Your task to perform on an android device: change the clock style Image 0: 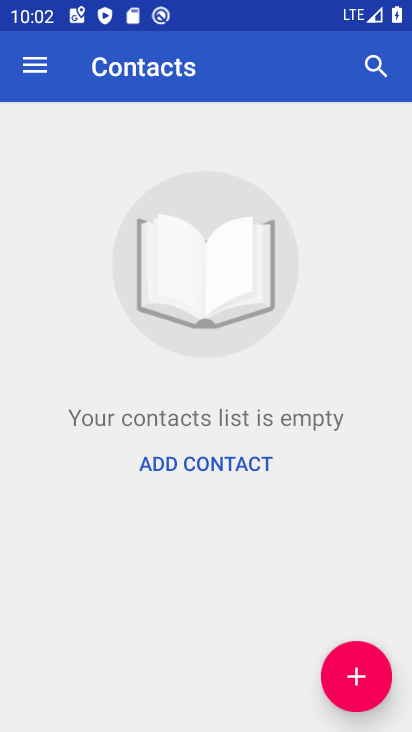
Step 0: press home button
Your task to perform on an android device: change the clock style Image 1: 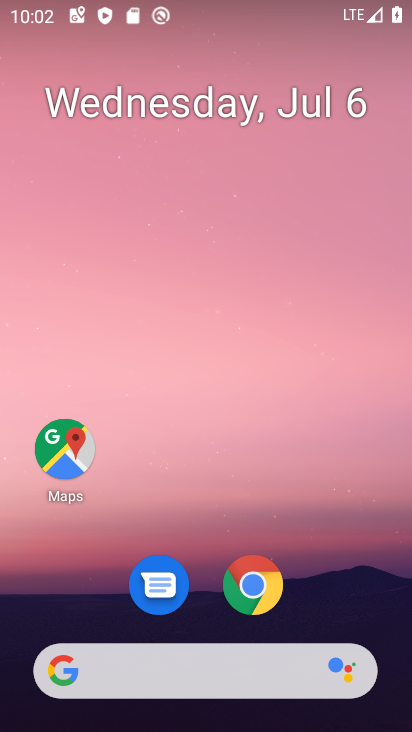
Step 1: drag from (208, 518) to (187, 111)
Your task to perform on an android device: change the clock style Image 2: 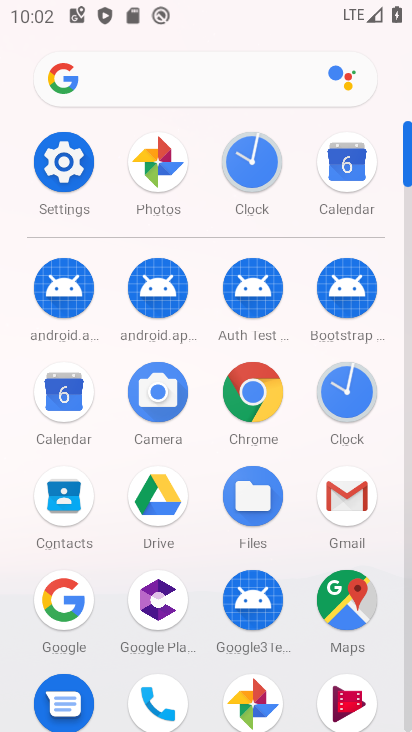
Step 2: click (357, 389)
Your task to perform on an android device: change the clock style Image 3: 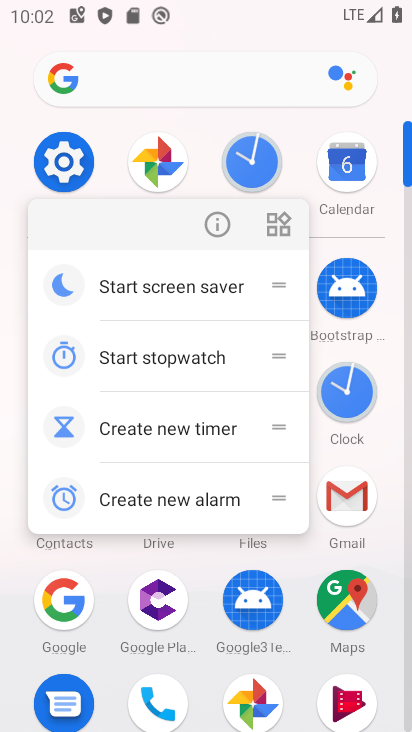
Step 3: click (355, 389)
Your task to perform on an android device: change the clock style Image 4: 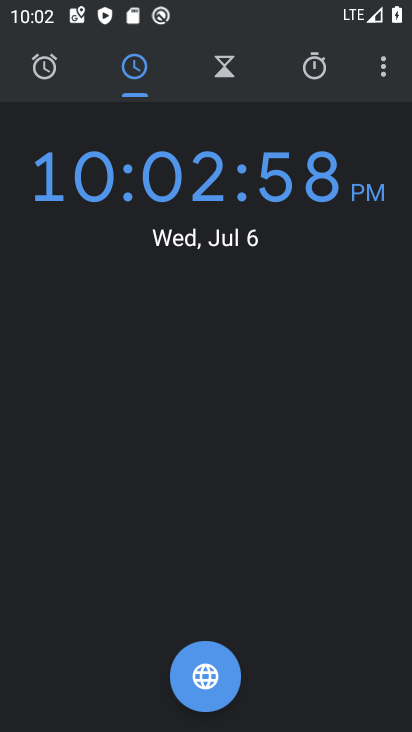
Step 4: click (383, 65)
Your task to perform on an android device: change the clock style Image 5: 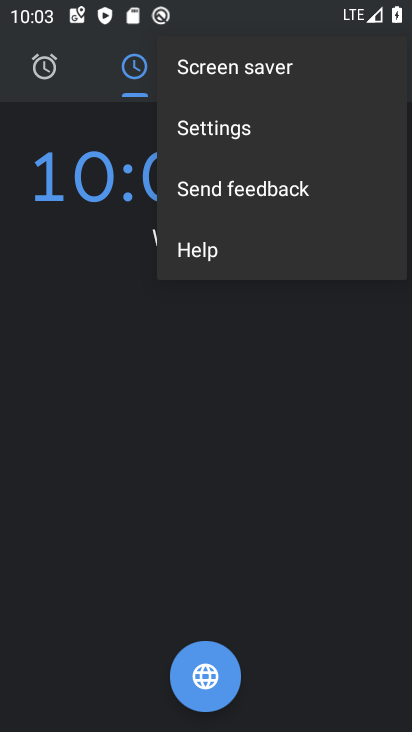
Step 5: click (266, 129)
Your task to perform on an android device: change the clock style Image 6: 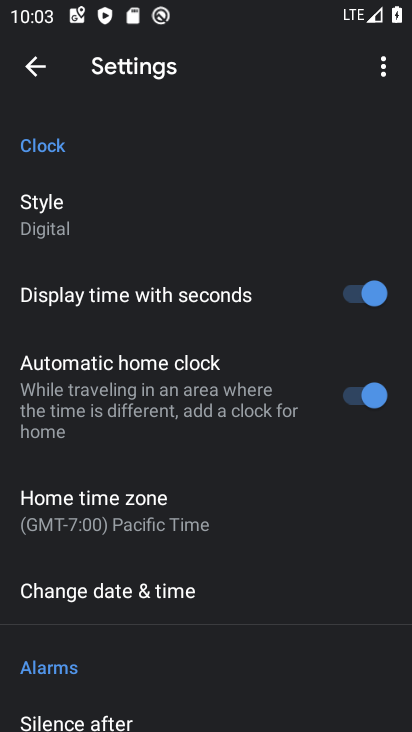
Step 6: click (65, 217)
Your task to perform on an android device: change the clock style Image 7: 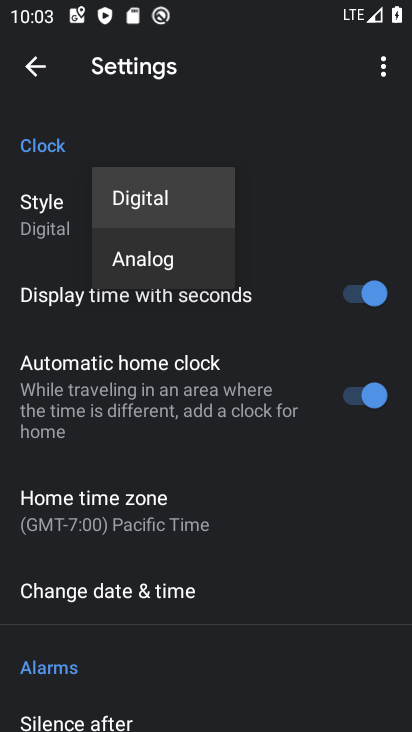
Step 7: click (119, 255)
Your task to perform on an android device: change the clock style Image 8: 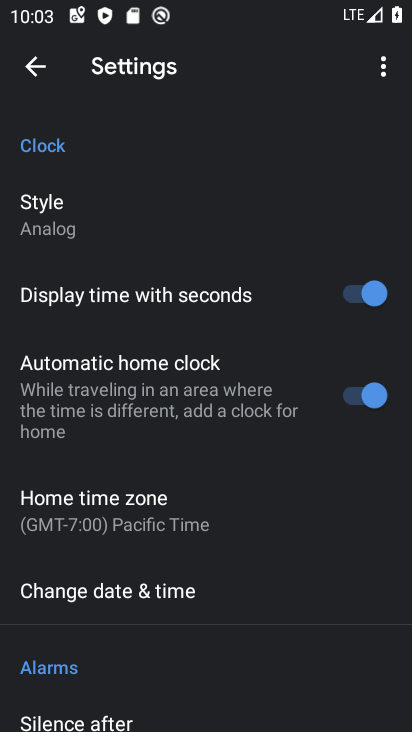
Step 8: click (34, 54)
Your task to perform on an android device: change the clock style Image 9: 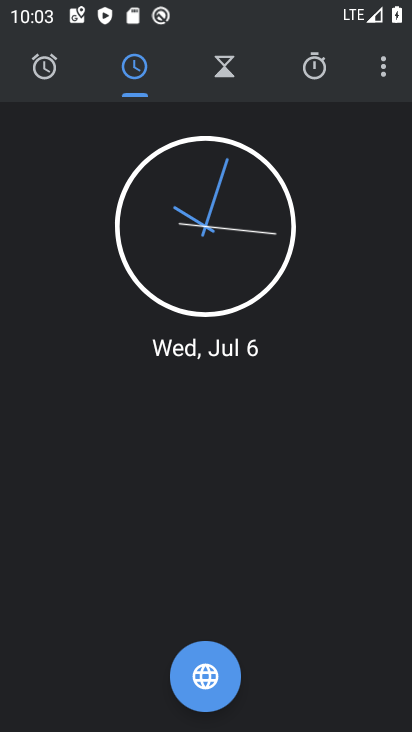
Step 9: task complete